Your task to perform on an android device: Open calendar and show me the first week of next month Image 0: 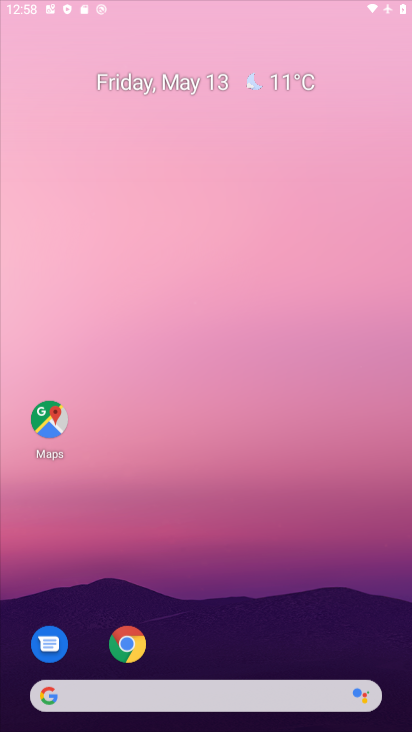
Step 0: click (223, 236)
Your task to perform on an android device: Open calendar and show me the first week of next month Image 1: 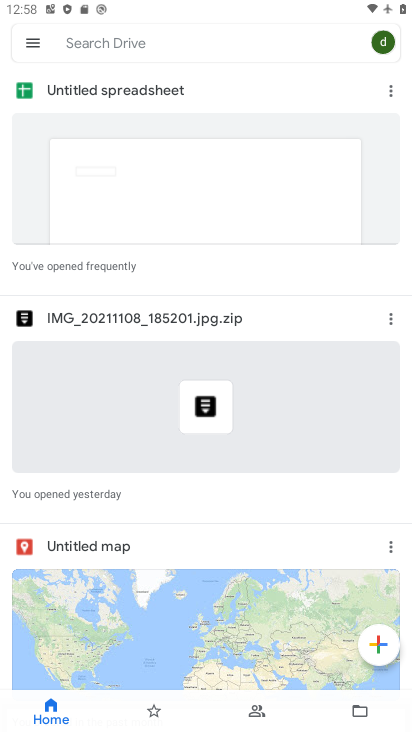
Step 1: press home button
Your task to perform on an android device: Open calendar and show me the first week of next month Image 2: 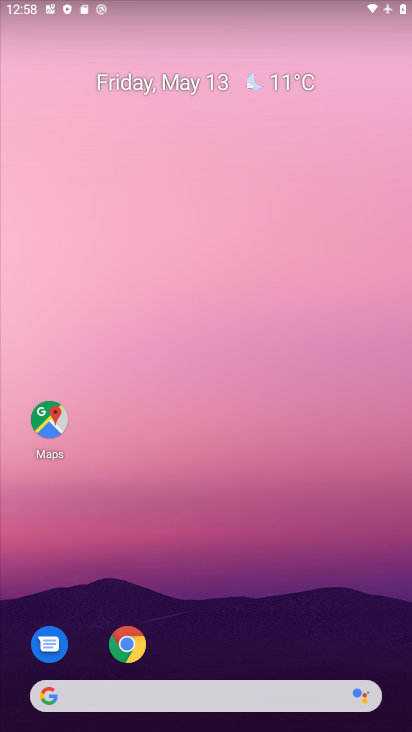
Step 2: drag from (226, 727) to (221, 244)
Your task to perform on an android device: Open calendar and show me the first week of next month Image 3: 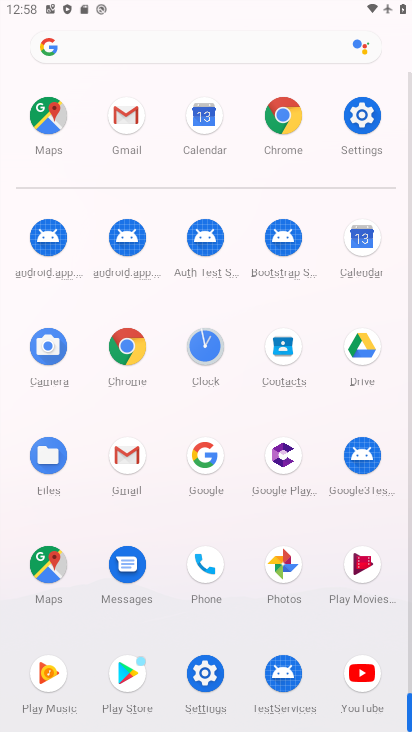
Step 3: click (359, 242)
Your task to perform on an android device: Open calendar and show me the first week of next month Image 4: 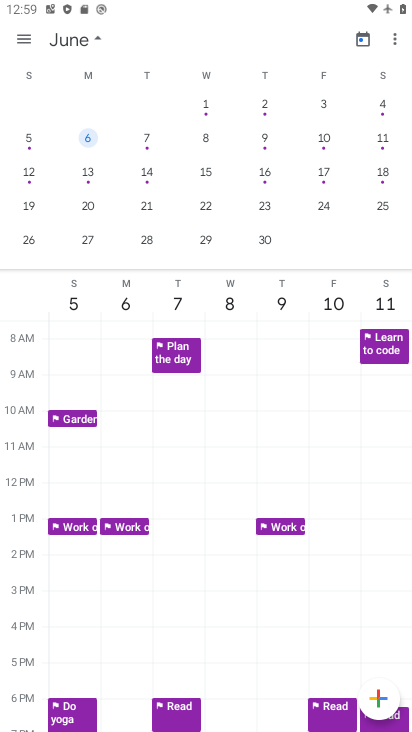
Step 4: task complete